Your task to perform on an android device: Open Android settings Image 0: 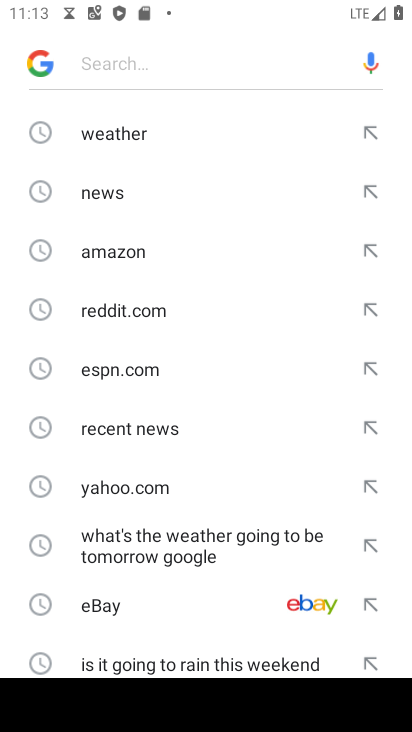
Step 0: press home button
Your task to perform on an android device: Open Android settings Image 1: 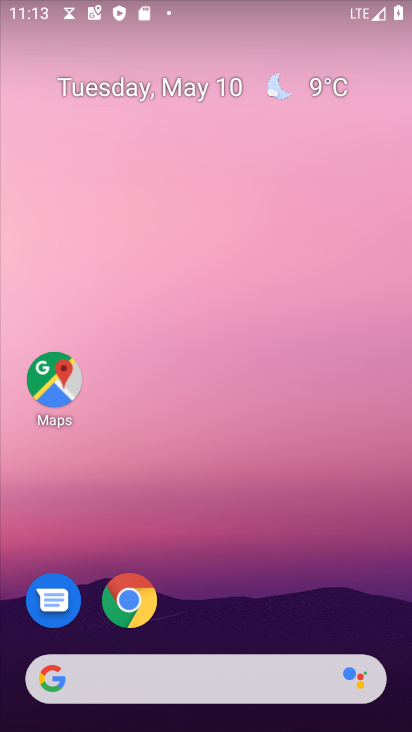
Step 1: drag from (266, 605) to (227, 166)
Your task to perform on an android device: Open Android settings Image 2: 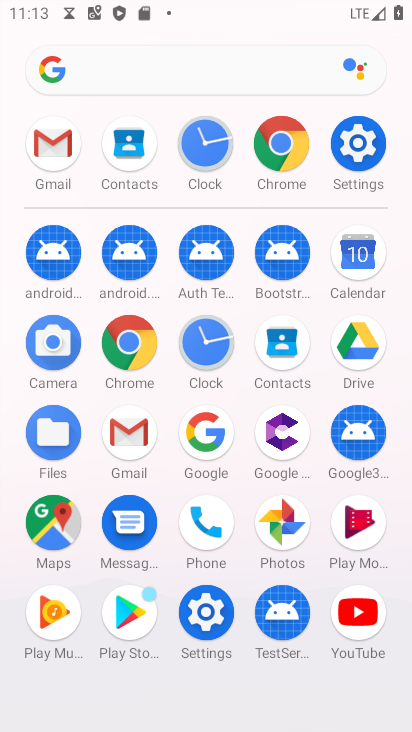
Step 2: click (357, 138)
Your task to perform on an android device: Open Android settings Image 3: 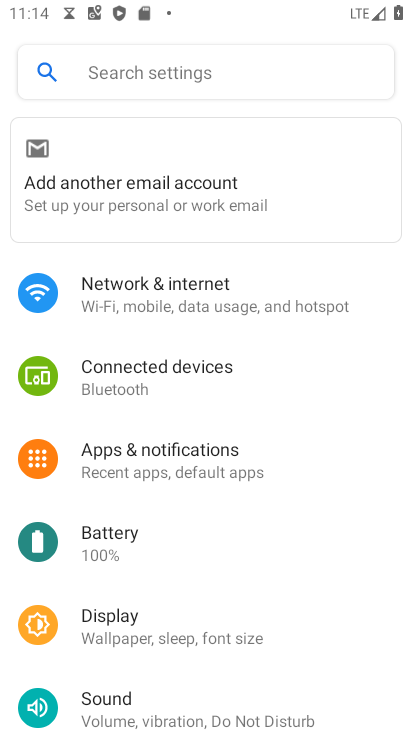
Step 3: drag from (239, 622) to (242, 149)
Your task to perform on an android device: Open Android settings Image 4: 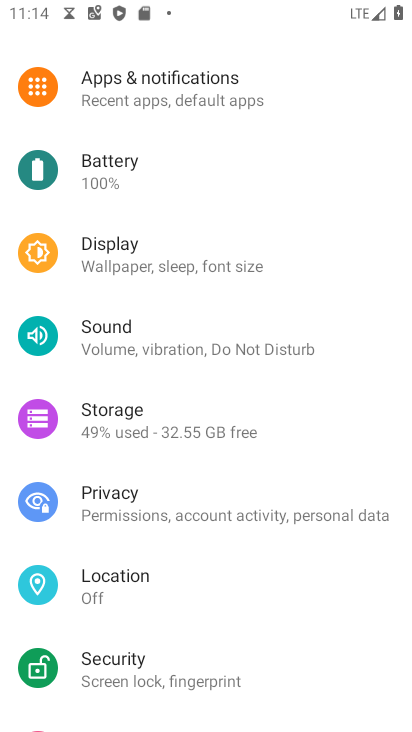
Step 4: drag from (199, 574) to (198, 154)
Your task to perform on an android device: Open Android settings Image 5: 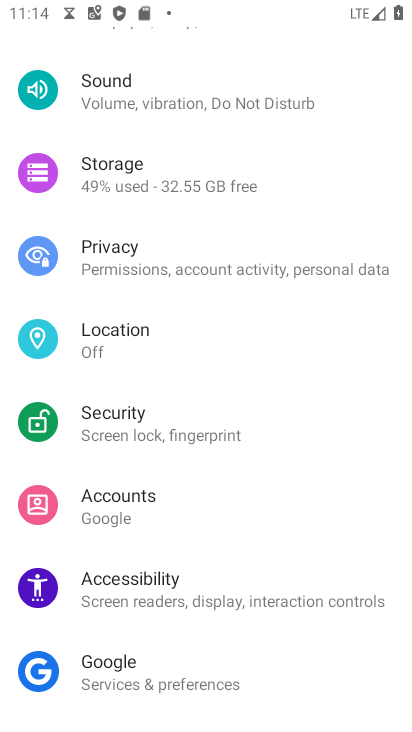
Step 5: drag from (200, 648) to (200, 262)
Your task to perform on an android device: Open Android settings Image 6: 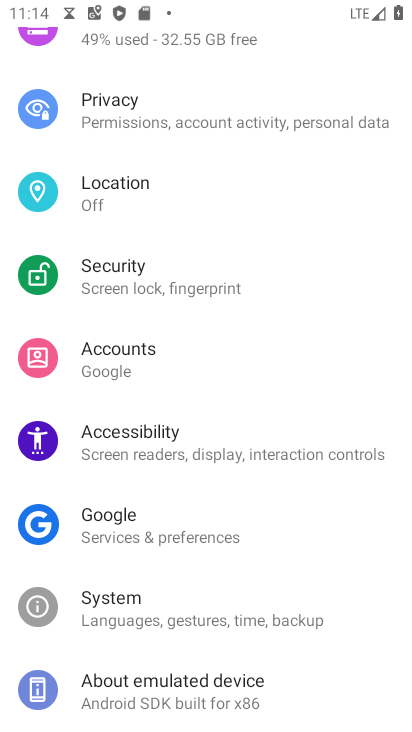
Step 6: click (208, 685)
Your task to perform on an android device: Open Android settings Image 7: 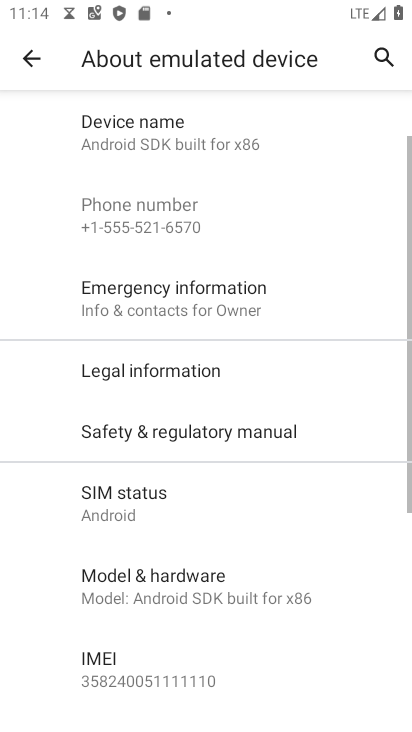
Step 7: drag from (206, 626) to (191, 124)
Your task to perform on an android device: Open Android settings Image 8: 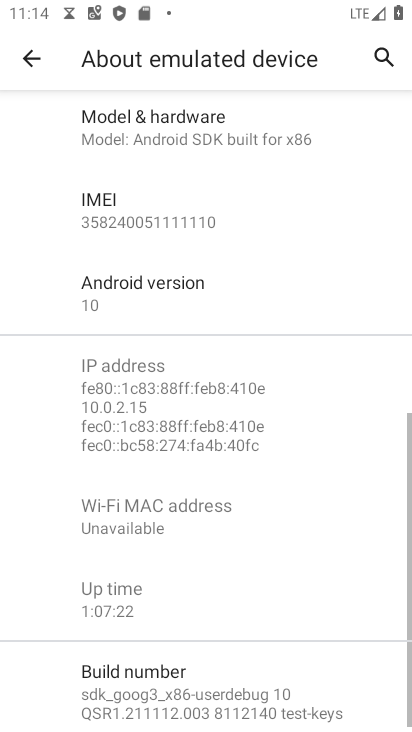
Step 8: drag from (212, 609) to (200, 224)
Your task to perform on an android device: Open Android settings Image 9: 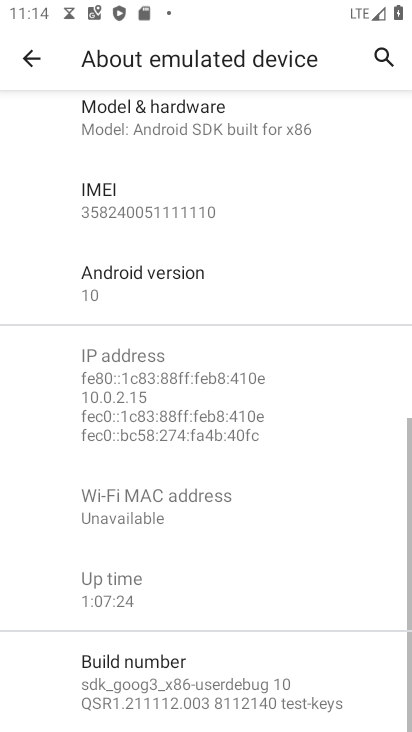
Step 9: click (184, 266)
Your task to perform on an android device: Open Android settings Image 10: 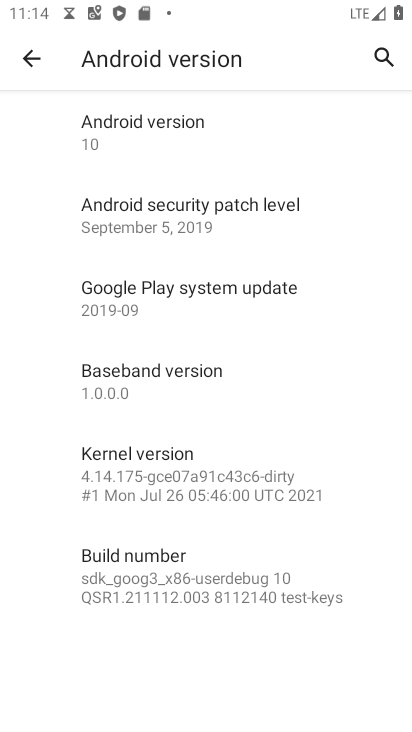
Step 10: click (219, 138)
Your task to perform on an android device: Open Android settings Image 11: 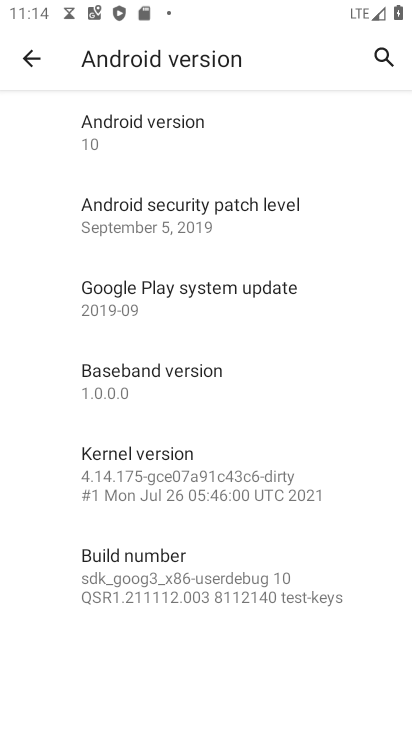
Step 11: task complete